Your task to perform on an android device: Open Google Image 0: 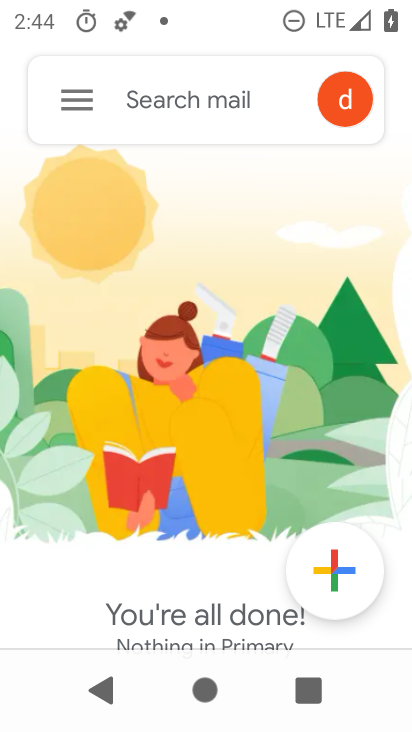
Step 0: press home button
Your task to perform on an android device: Open Google Image 1: 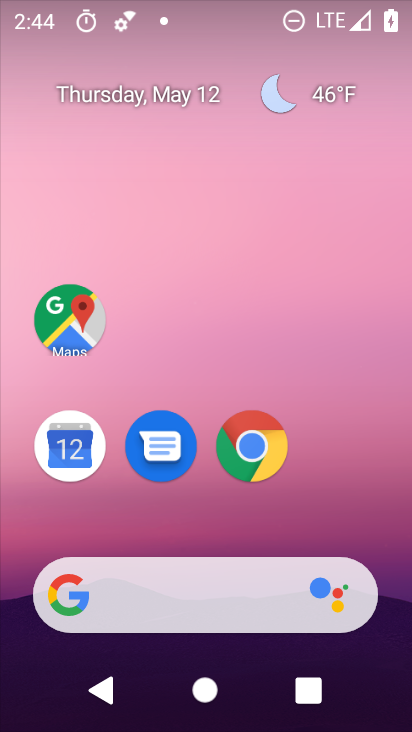
Step 1: drag from (224, 539) to (248, 237)
Your task to perform on an android device: Open Google Image 2: 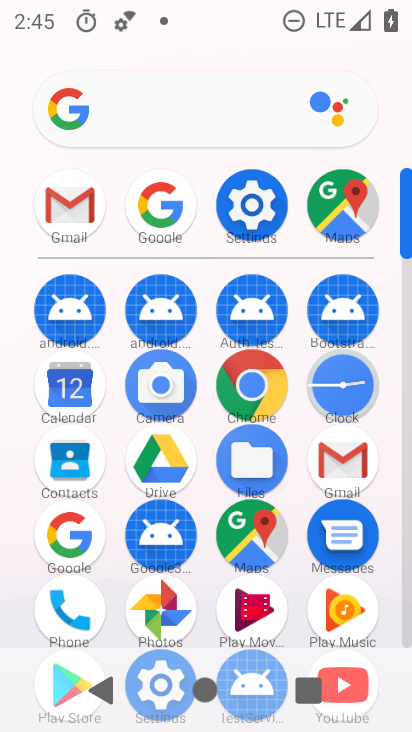
Step 2: click (155, 199)
Your task to perform on an android device: Open Google Image 3: 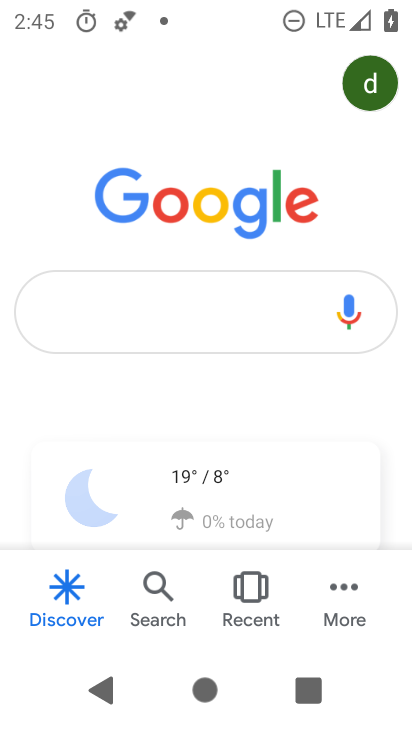
Step 3: task complete